Your task to perform on an android device: Go to wifi settings Image 0: 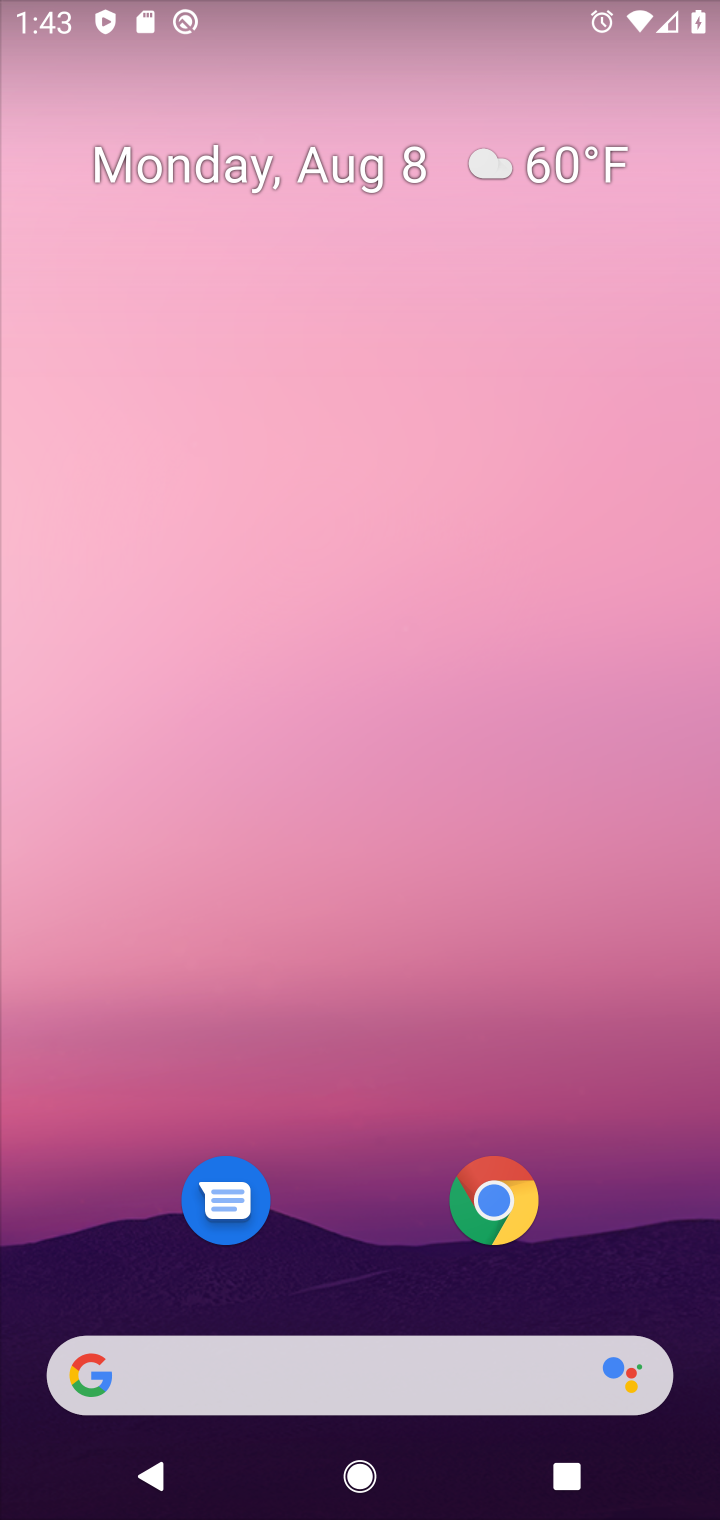
Step 0: press home button
Your task to perform on an android device: Go to wifi settings Image 1: 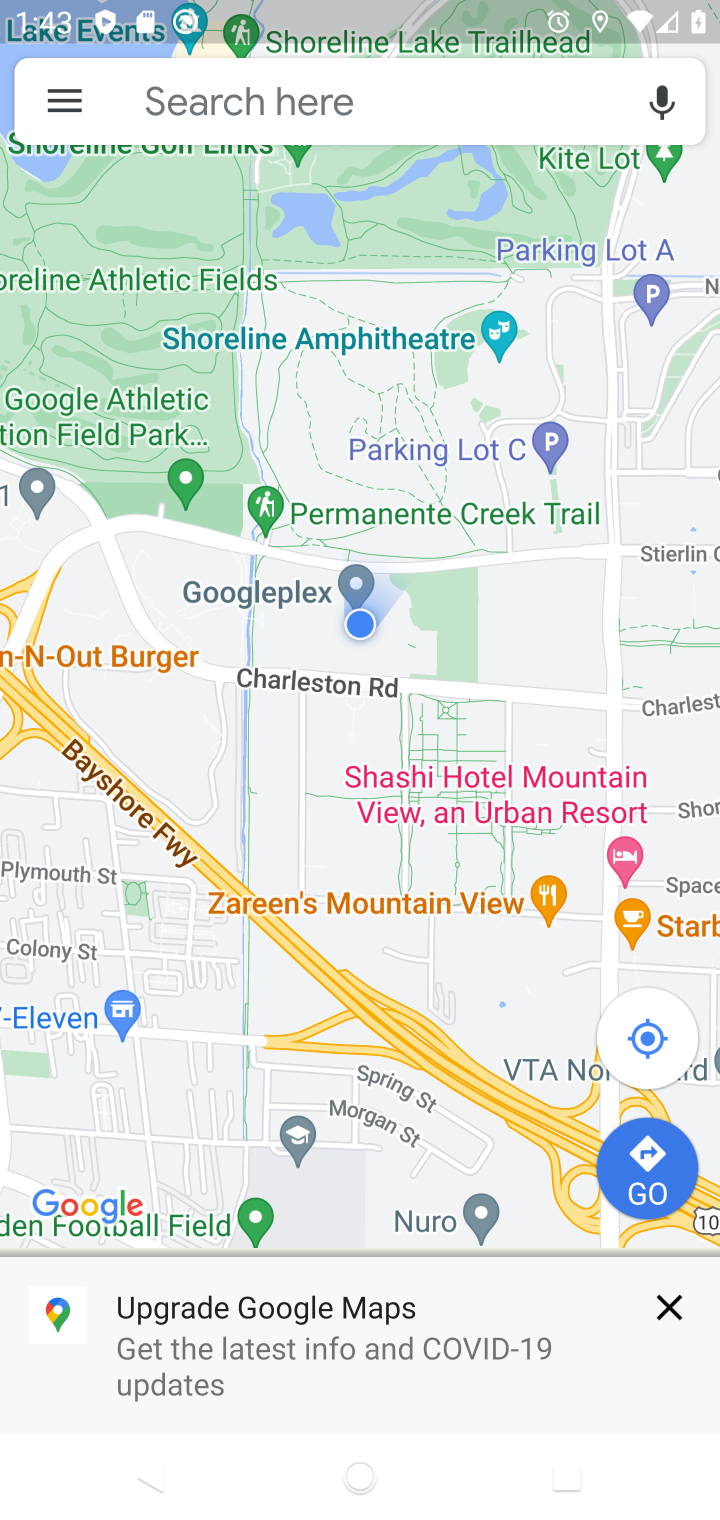
Step 1: drag from (410, 255) to (410, 47)
Your task to perform on an android device: Go to wifi settings Image 2: 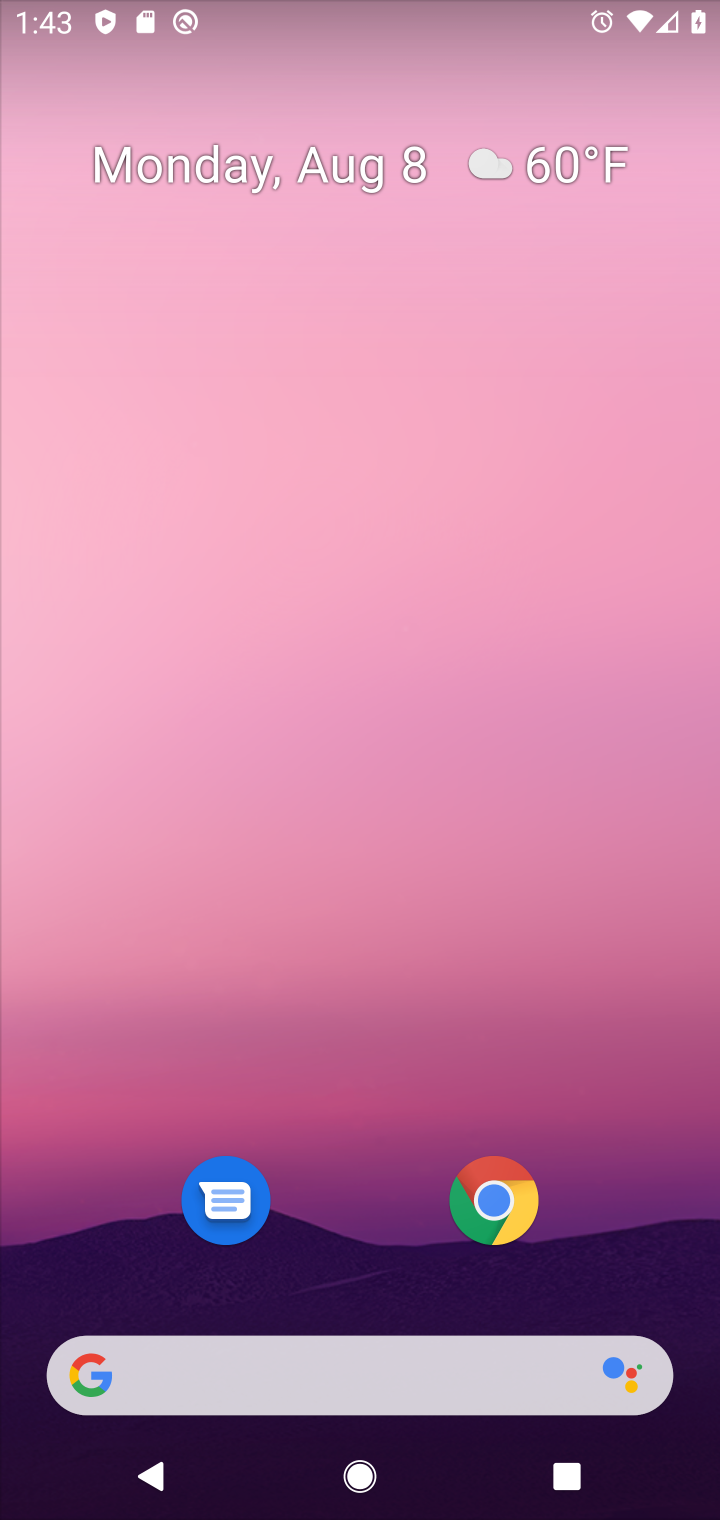
Step 2: drag from (405, 1009) to (495, 110)
Your task to perform on an android device: Go to wifi settings Image 3: 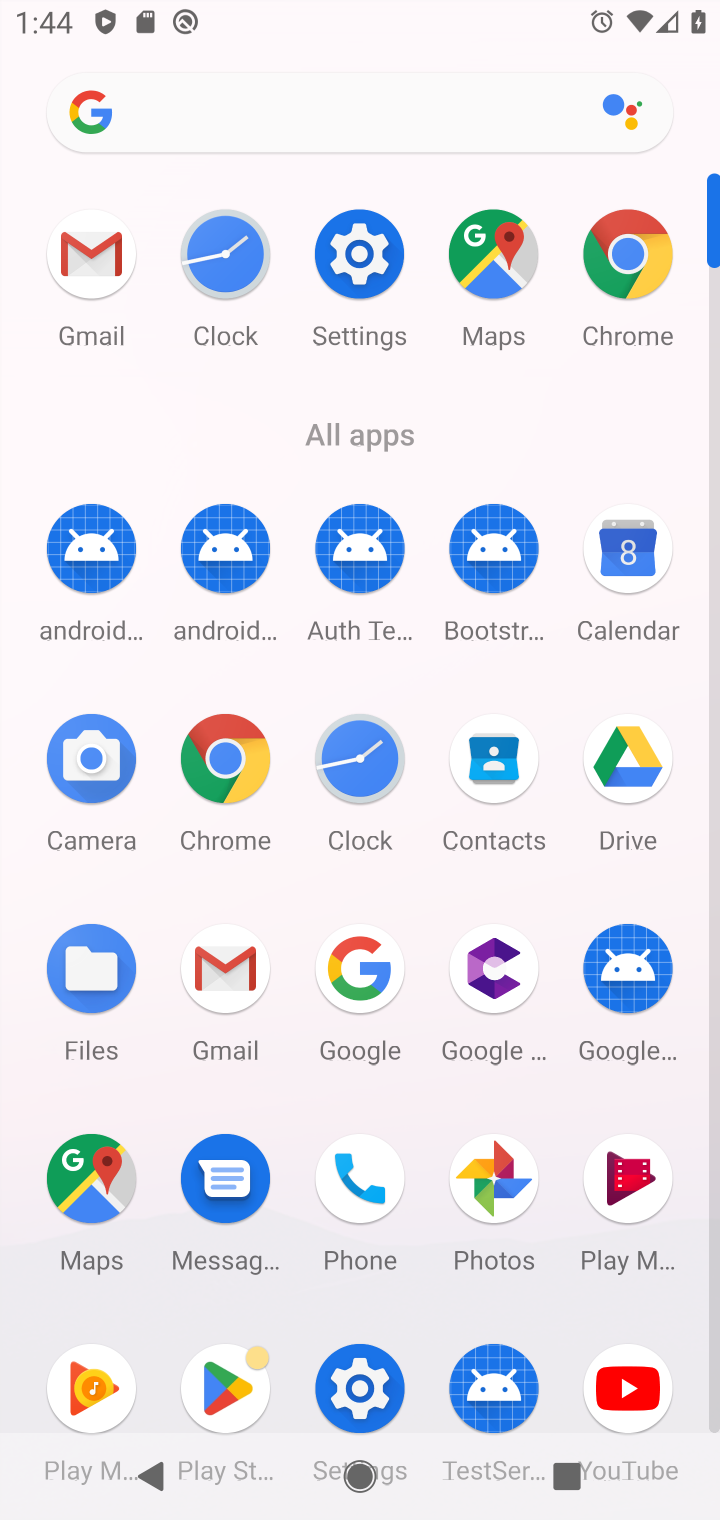
Step 3: click (353, 239)
Your task to perform on an android device: Go to wifi settings Image 4: 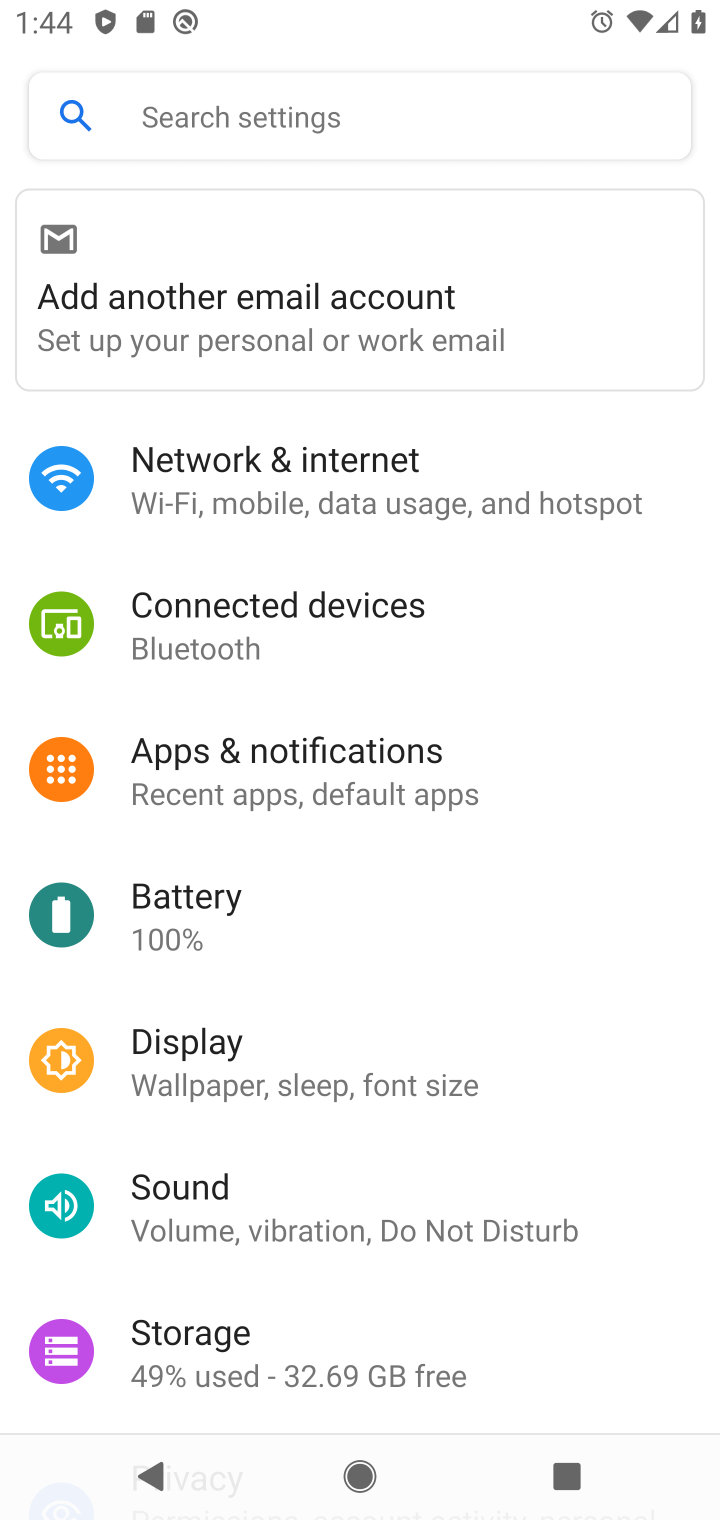
Step 4: click (278, 467)
Your task to perform on an android device: Go to wifi settings Image 5: 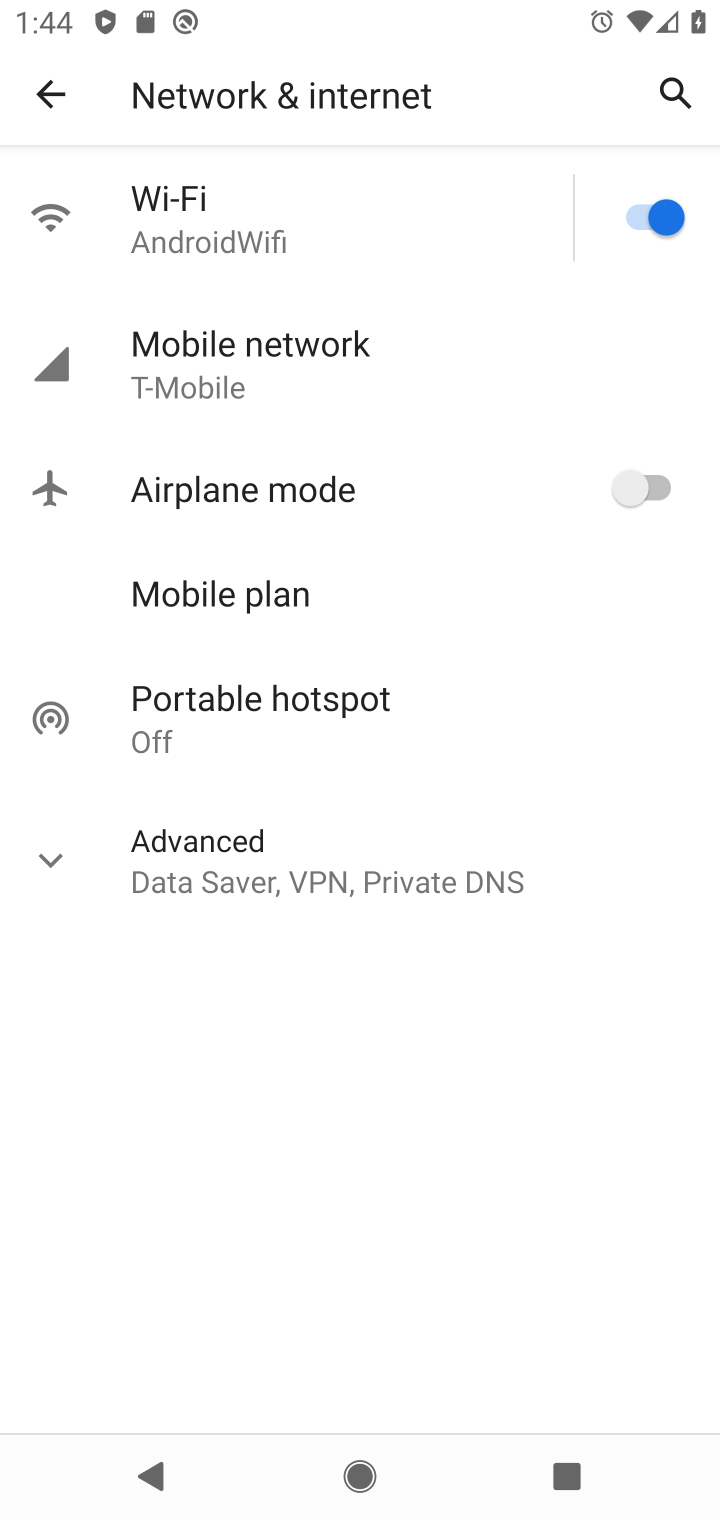
Step 5: click (345, 213)
Your task to perform on an android device: Go to wifi settings Image 6: 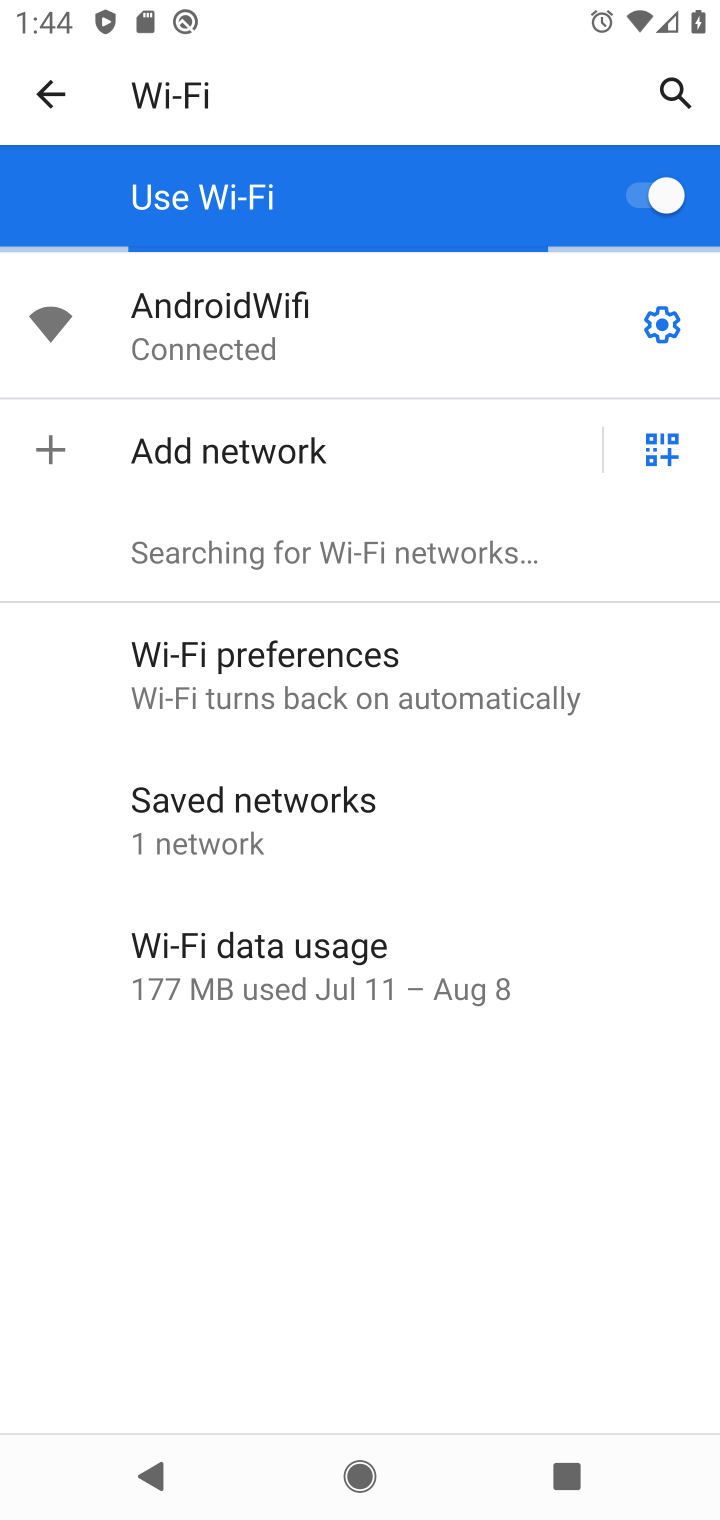
Step 6: task complete